Your task to perform on an android device: search for starred emails in the gmail app Image 0: 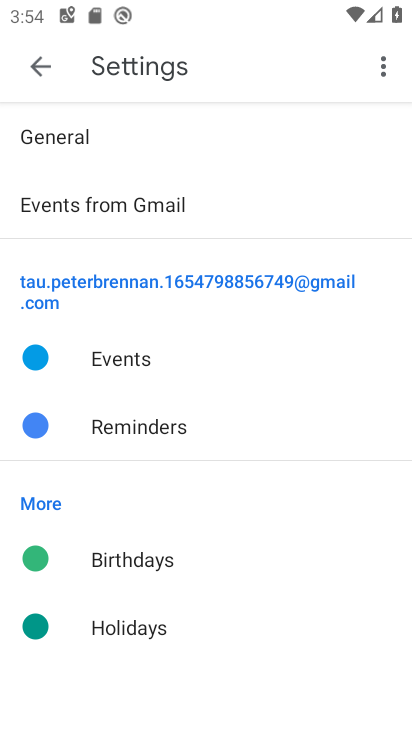
Step 0: press home button
Your task to perform on an android device: search for starred emails in the gmail app Image 1: 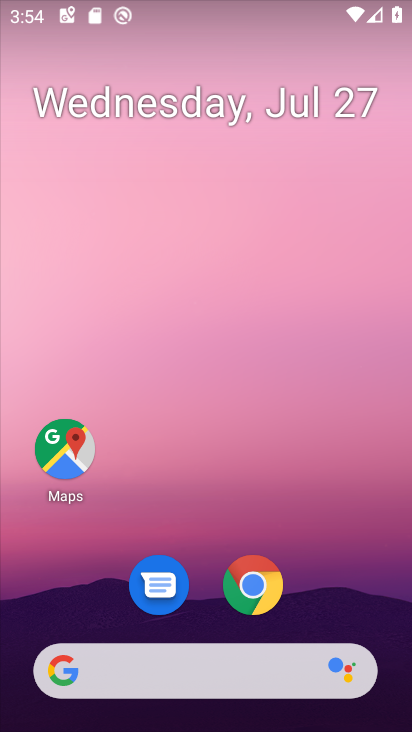
Step 1: drag from (331, 602) to (332, 16)
Your task to perform on an android device: search for starred emails in the gmail app Image 2: 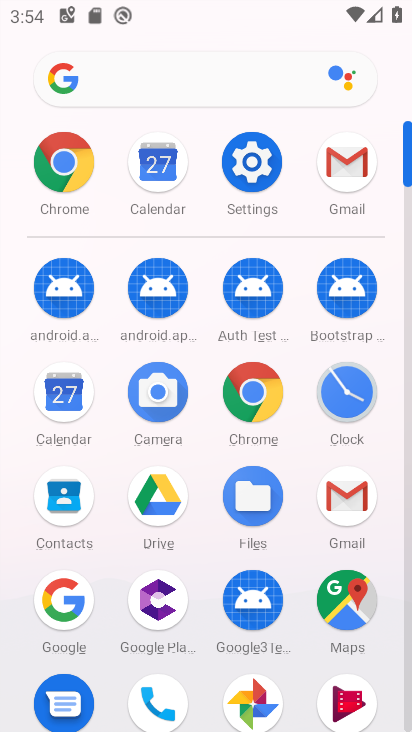
Step 2: click (348, 167)
Your task to perform on an android device: search for starred emails in the gmail app Image 3: 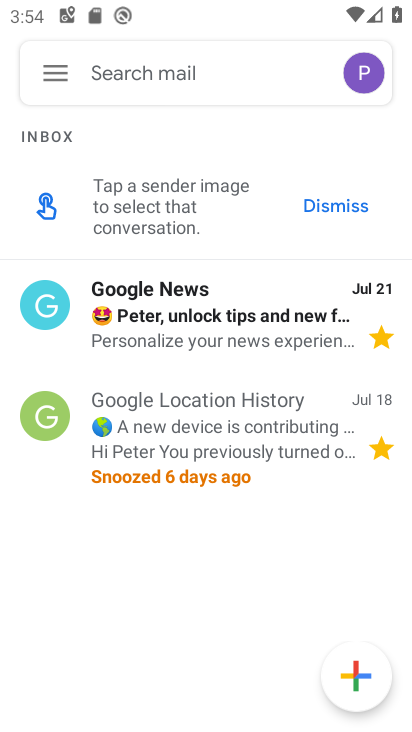
Step 3: click (59, 80)
Your task to perform on an android device: search for starred emails in the gmail app Image 4: 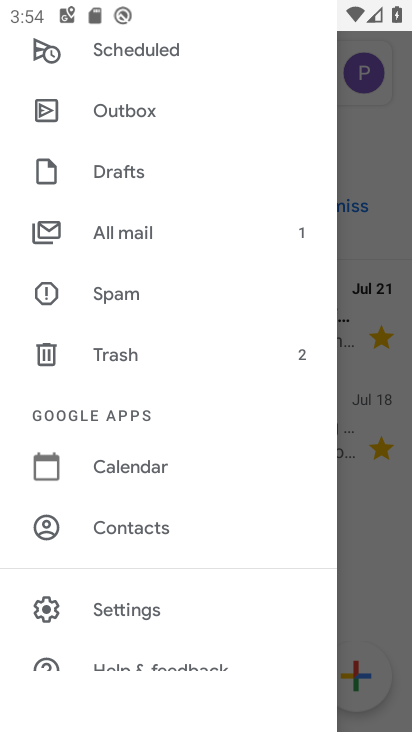
Step 4: drag from (198, 89) to (196, 382)
Your task to perform on an android device: search for starred emails in the gmail app Image 5: 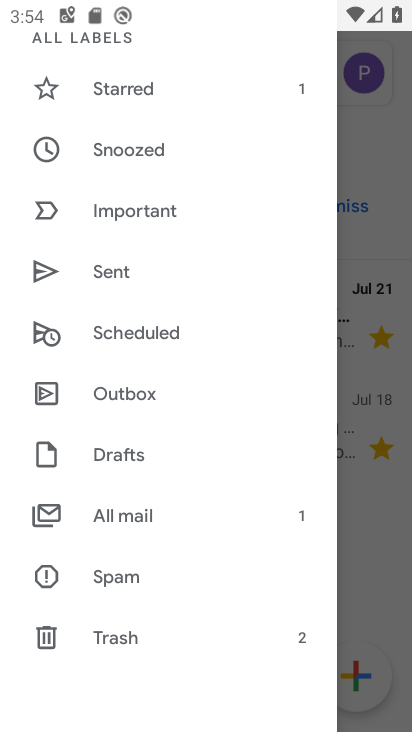
Step 5: click (146, 84)
Your task to perform on an android device: search for starred emails in the gmail app Image 6: 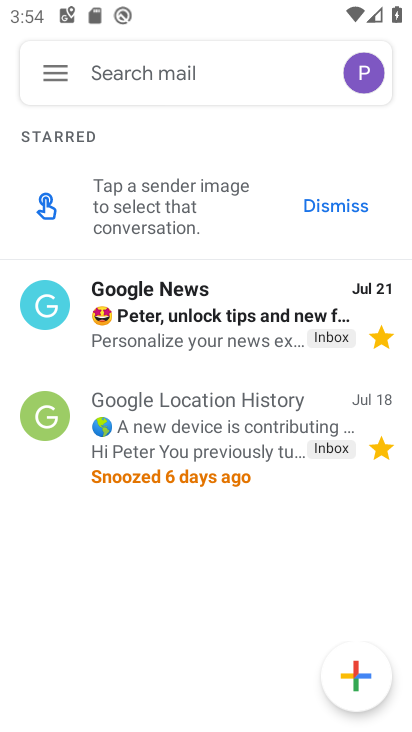
Step 6: task complete